Your task to perform on an android device: What's the weather going to be tomorrow? Image 0: 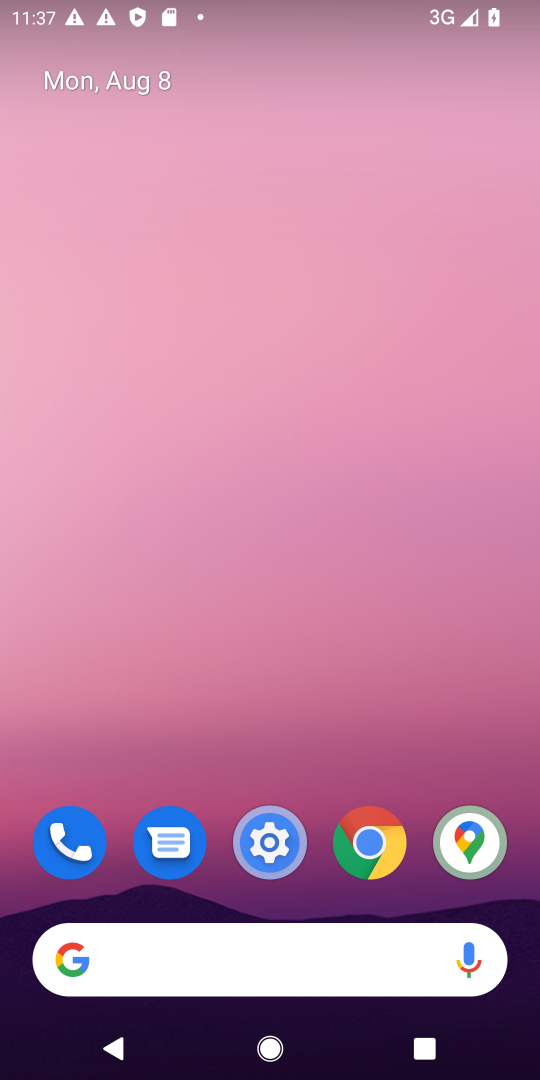
Step 0: click (329, 974)
Your task to perform on an android device: What's the weather going to be tomorrow? Image 1: 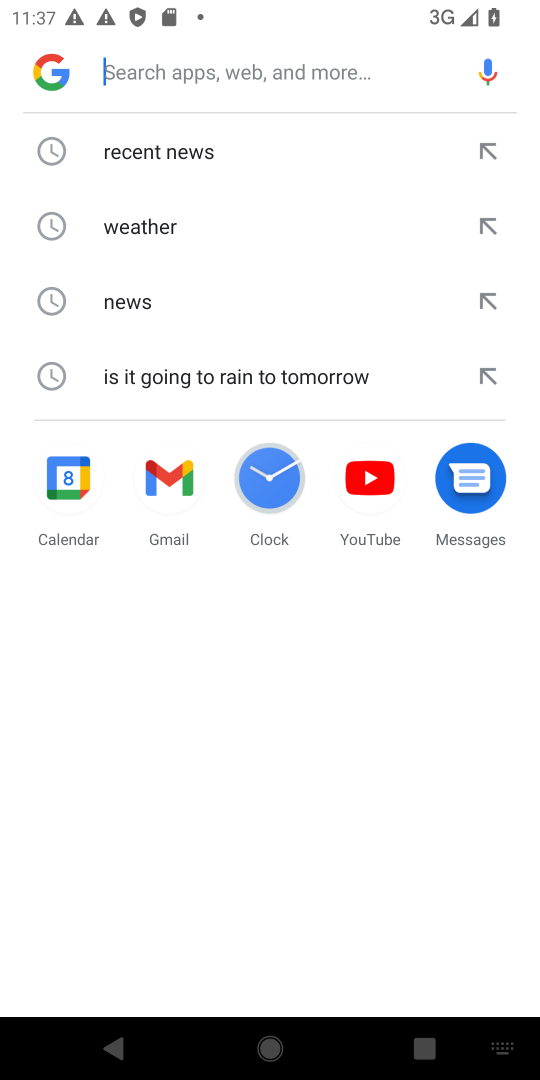
Step 1: click (145, 207)
Your task to perform on an android device: What's the weather going to be tomorrow? Image 2: 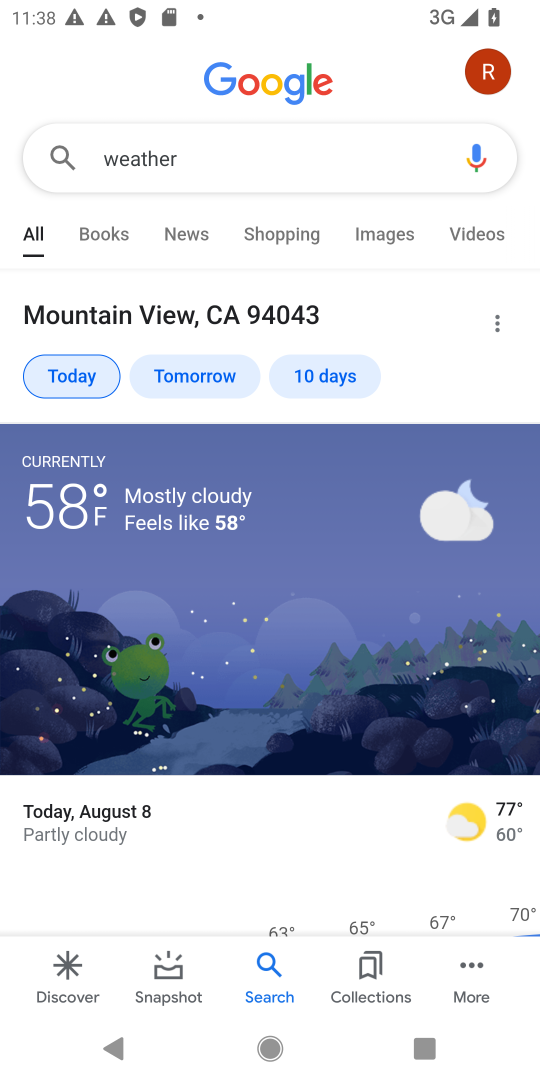
Step 2: task complete